Your task to perform on an android device: turn smart compose on in the gmail app Image 0: 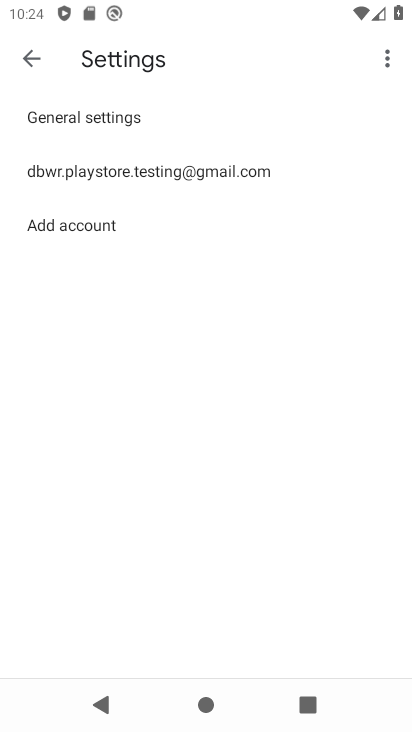
Step 0: press home button
Your task to perform on an android device: turn smart compose on in the gmail app Image 1: 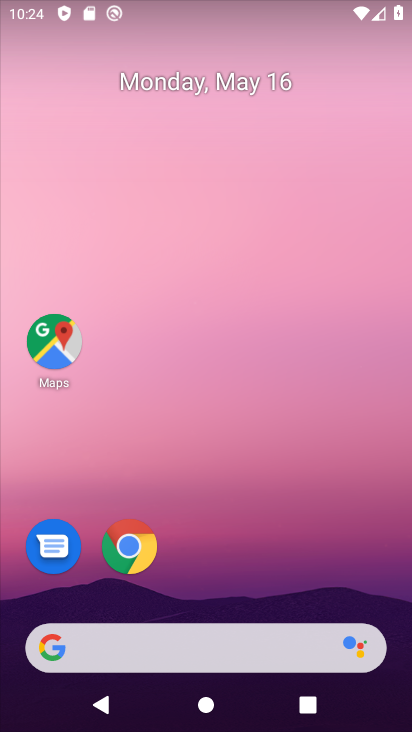
Step 1: drag from (144, 613) to (241, 209)
Your task to perform on an android device: turn smart compose on in the gmail app Image 2: 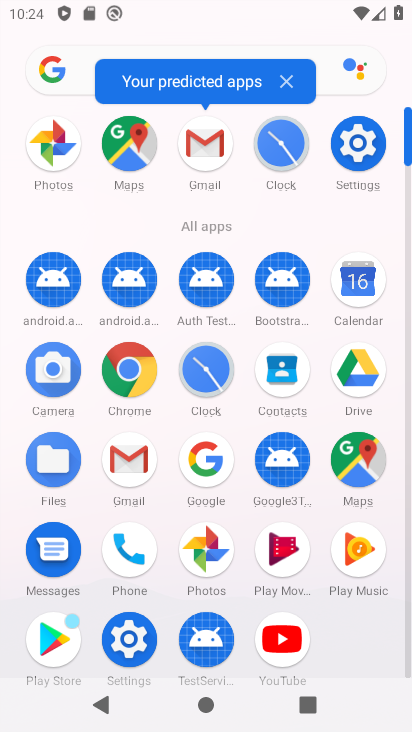
Step 2: drag from (158, 572) to (190, 423)
Your task to perform on an android device: turn smart compose on in the gmail app Image 3: 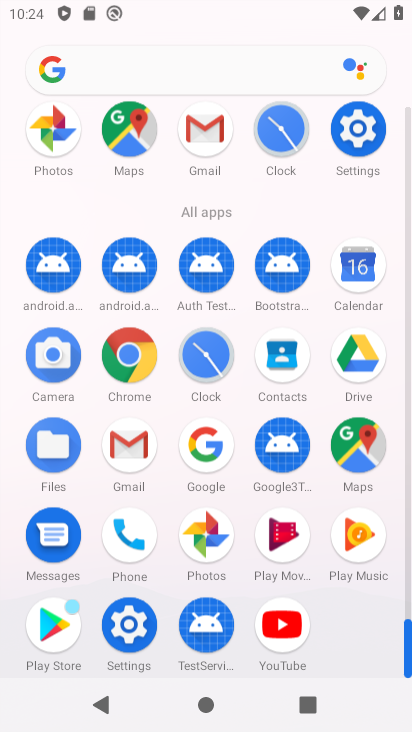
Step 3: click (128, 447)
Your task to perform on an android device: turn smart compose on in the gmail app Image 4: 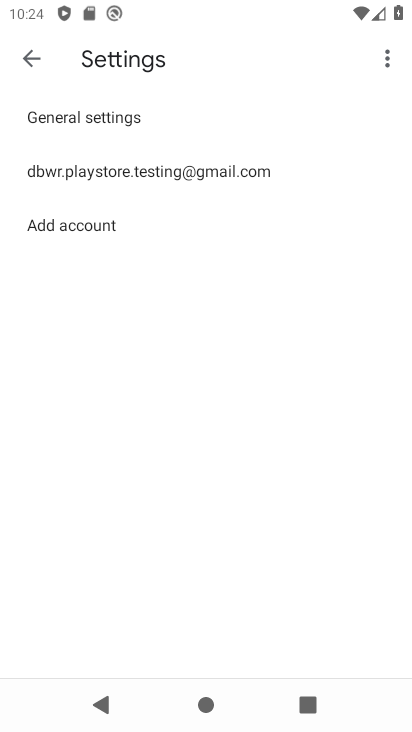
Step 4: click (246, 180)
Your task to perform on an android device: turn smart compose on in the gmail app Image 5: 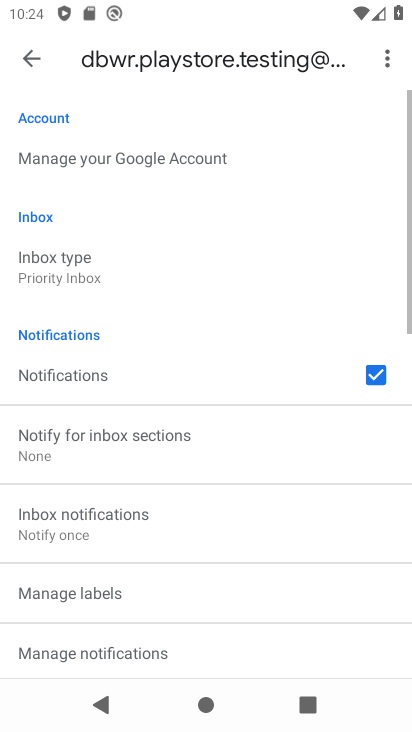
Step 5: task complete